Your task to perform on an android device: toggle priority inbox in the gmail app Image 0: 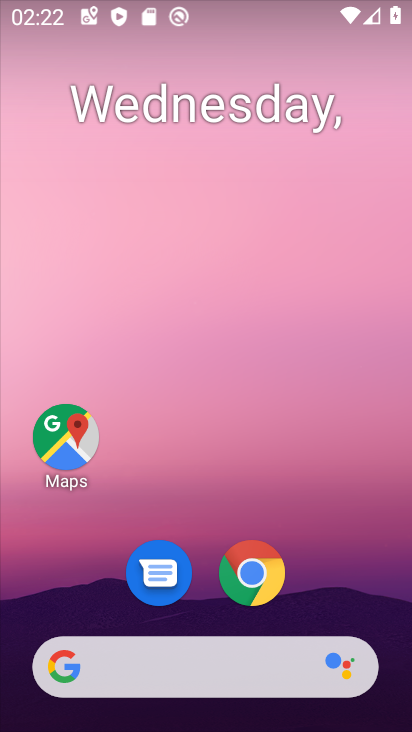
Step 0: drag from (341, 559) to (300, 0)
Your task to perform on an android device: toggle priority inbox in the gmail app Image 1: 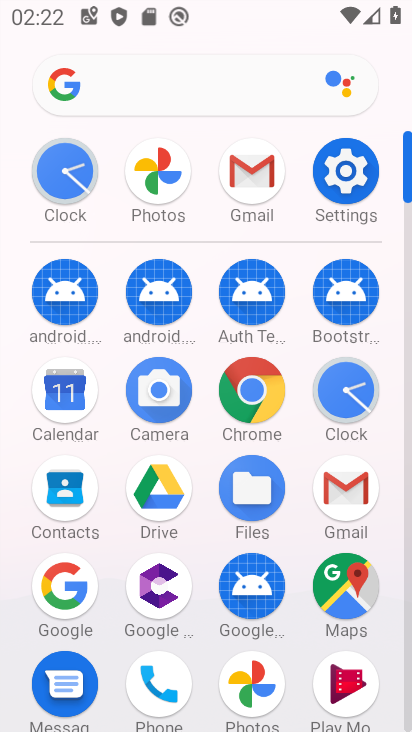
Step 1: click (246, 171)
Your task to perform on an android device: toggle priority inbox in the gmail app Image 2: 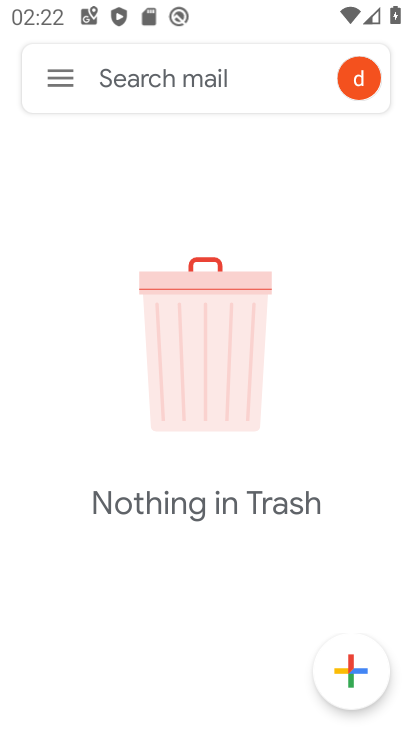
Step 2: click (61, 72)
Your task to perform on an android device: toggle priority inbox in the gmail app Image 3: 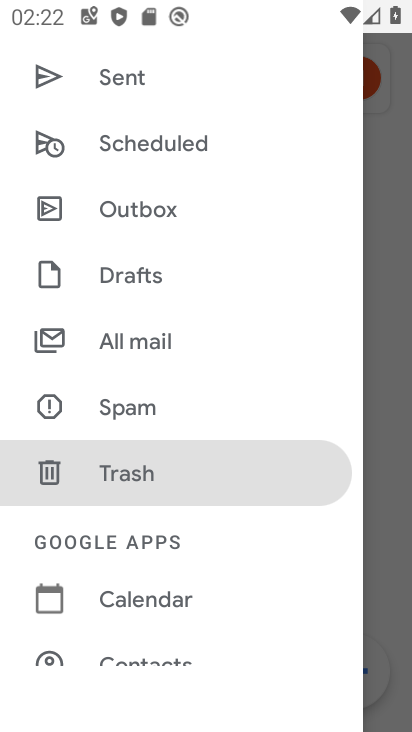
Step 3: drag from (197, 532) to (218, 410)
Your task to perform on an android device: toggle priority inbox in the gmail app Image 4: 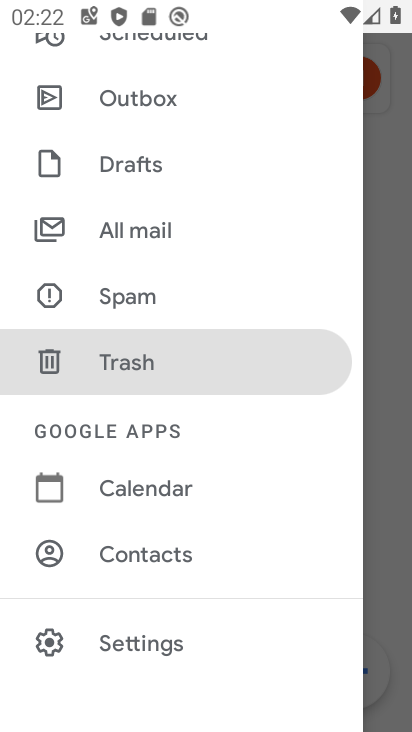
Step 4: drag from (183, 541) to (232, 378)
Your task to perform on an android device: toggle priority inbox in the gmail app Image 5: 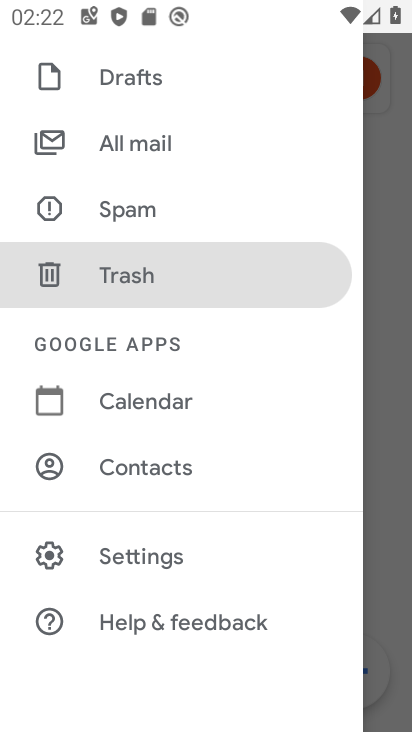
Step 5: click (141, 547)
Your task to perform on an android device: toggle priority inbox in the gmail app Image 6: 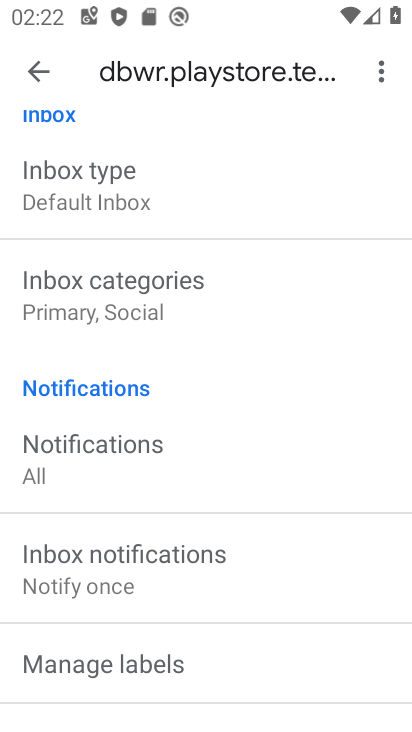
Step 6: click (86, 198)
Your task to perform on an android device: toggle priority inbox in the gmail app Image 7: 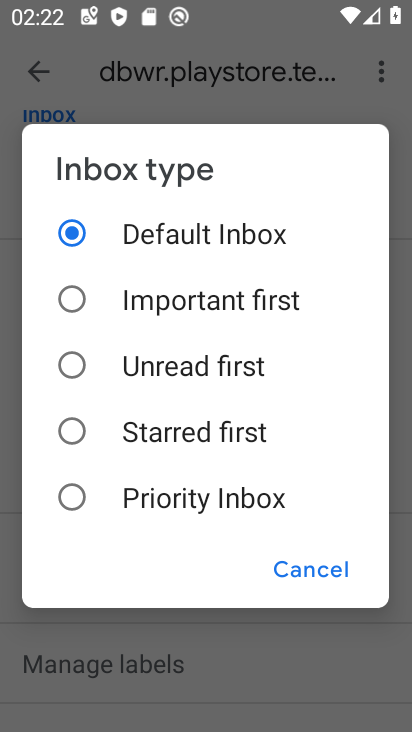
Step 7: click (74, 500)
Your task to perform on an android device: toggle priority inbox in the gmail app Image 8: 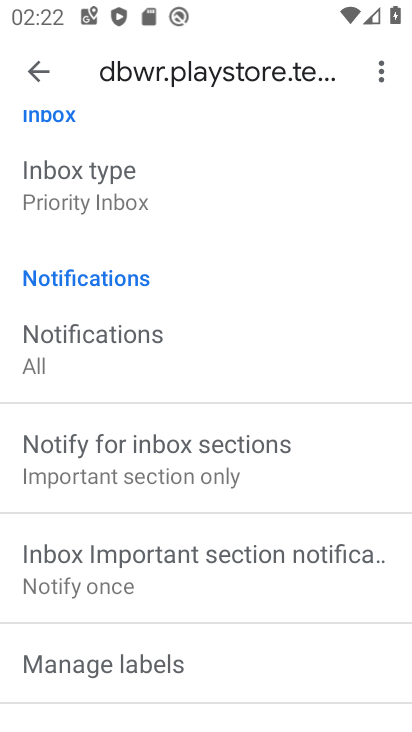
Step 8: task complete